Your task to perform on an android device: Open Android settings Image 0: 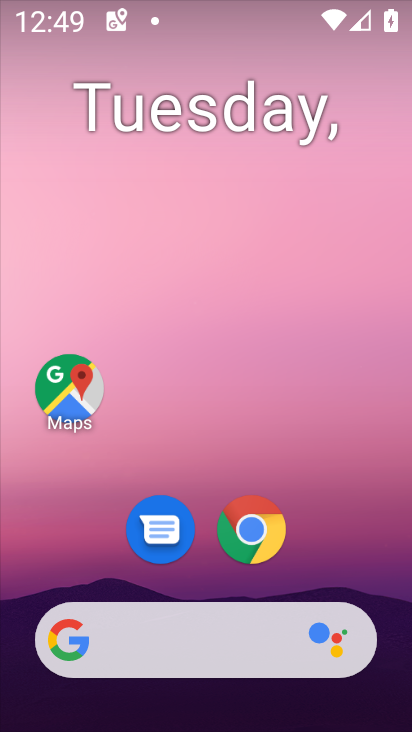
Step 0: drag from (199, 576) to (226, 27)
Your task to perform on an android device: Open Android settings Image 1: 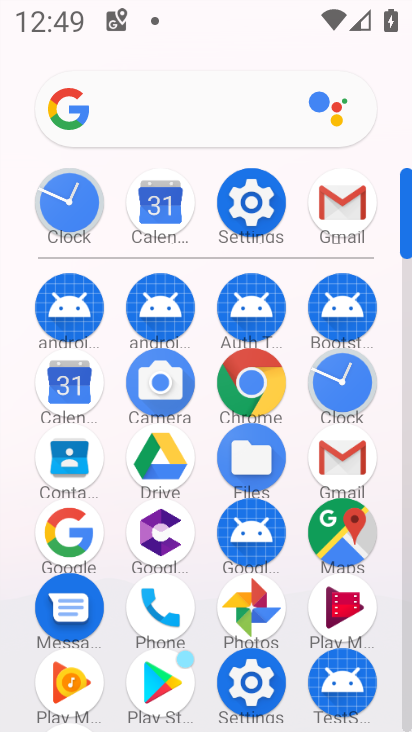
Step 1: click (252, 192)
Your task to perform on an android device: Open Android settings Image 2: 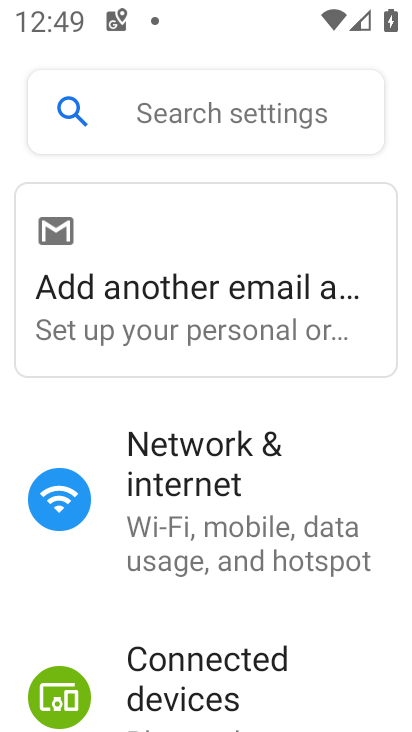
Step 2: drag from (206, 630) to (265, 91)
Your task to perform on an android device: Open Android settings Image 3: 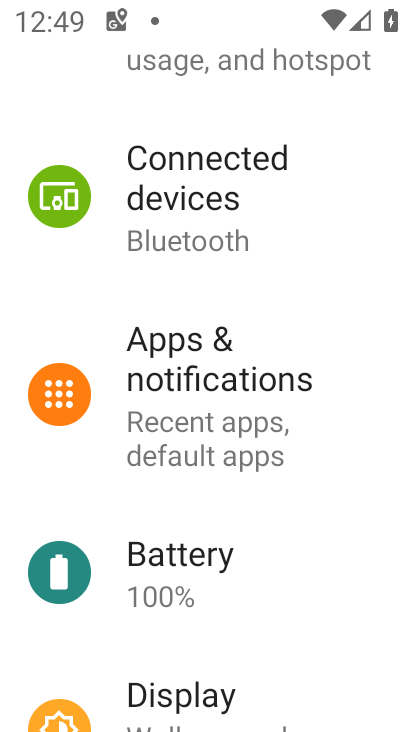
Step 3: drag from (244, 651) to (328, 107)
Your task to perform on an android device: Open Android settings Image 4: 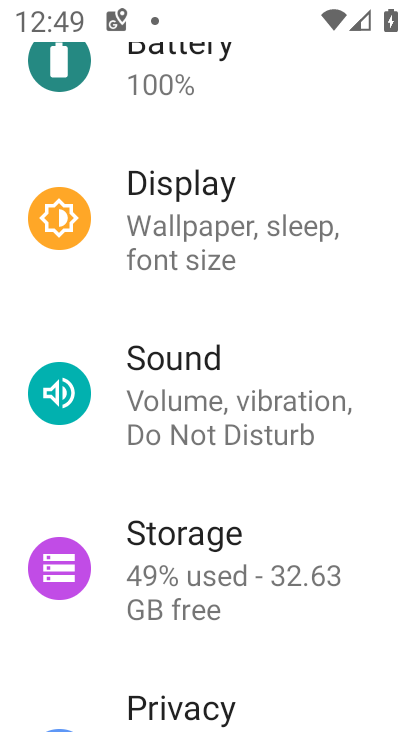
Step 4: drag from (207, 622) to (258, 9)
Your task to perform on an android device: Open Android settings Image 5: 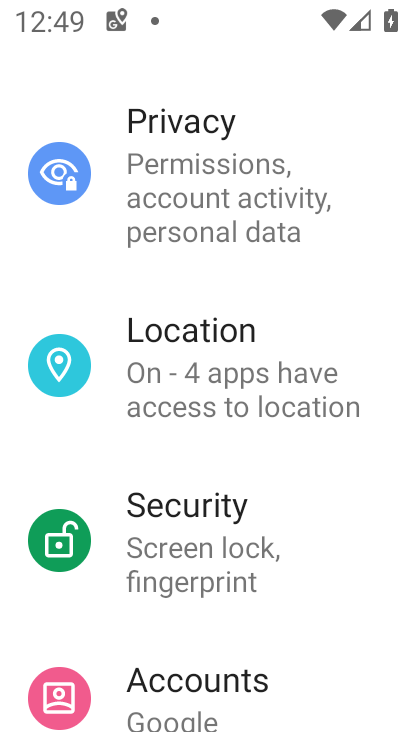
Step 5: drag from (177, 669) to (249, 52)
Your task to perform on an android device: Open Android settings Image 6: 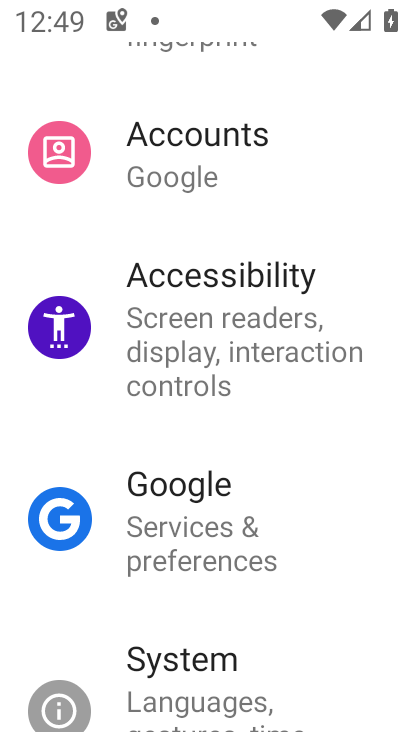
Step 6: drag from (157, 672) to (253, 62)
Your task to perform on an android device: Open Android settings Image 7: 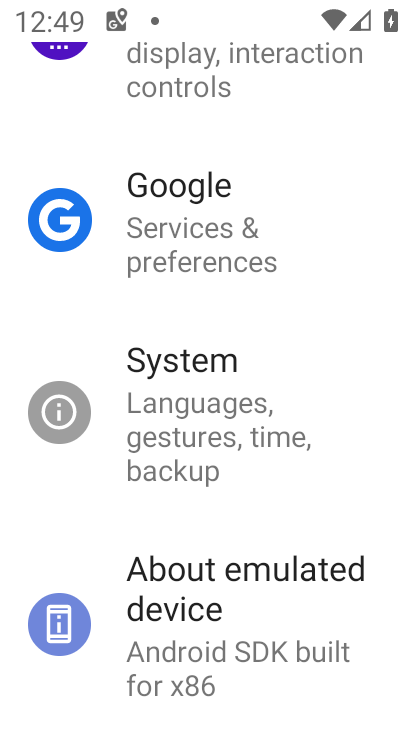
Step 7: click (188, 660)
Your task to perform on an android device: Open Android settings Image 8: 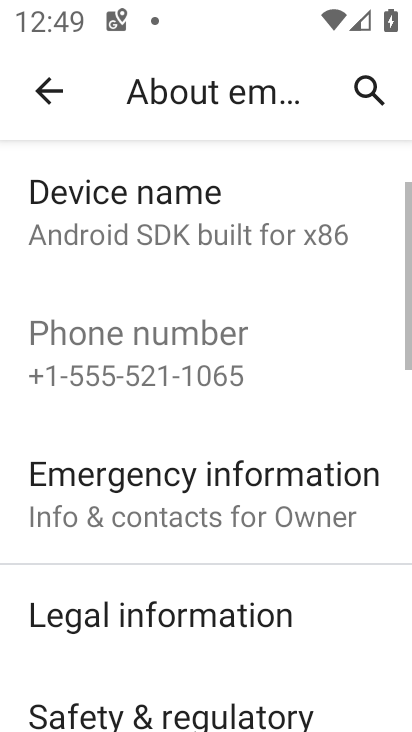
Step 8: task complete